Your task to perform on an android device: Go to ESPN.com Image 0: 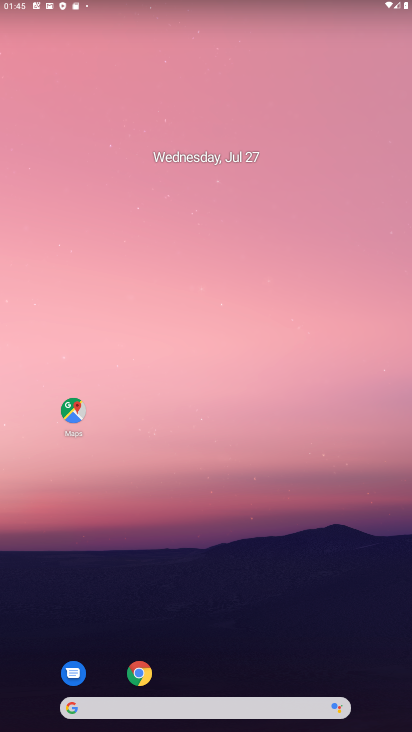
Step 0: drag from (263, 665) to (260, 177)
Your task to perform on an android device: Go to ESPN.com Image 1: 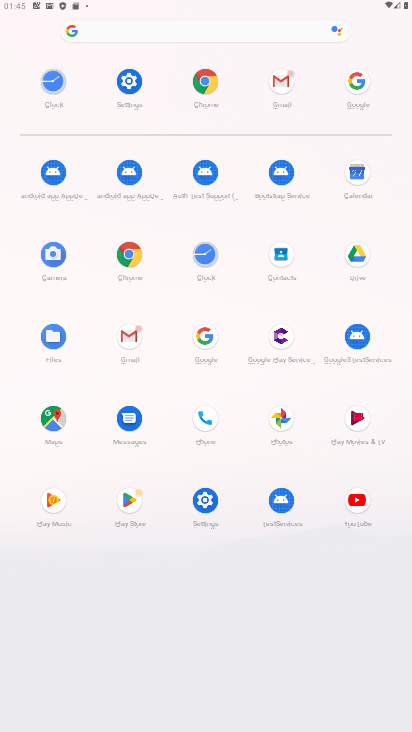
Step 1: click (212, 81)
Your task to perform on an android device: Go to ESPN.com Image 2: 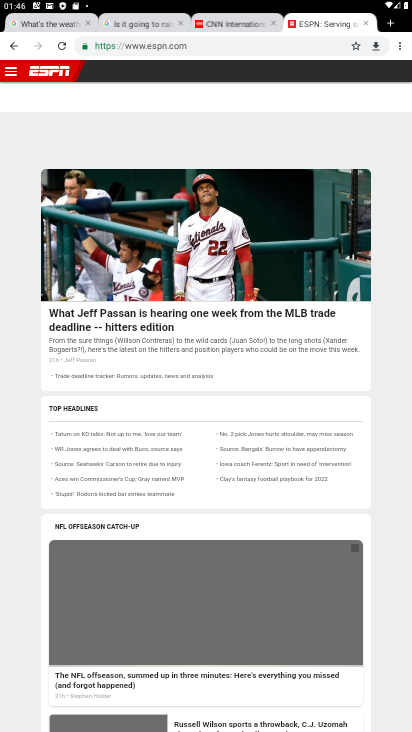
Step 2: task complete